Your task to perform on an android device: Open settings on Google Maps Image 0: 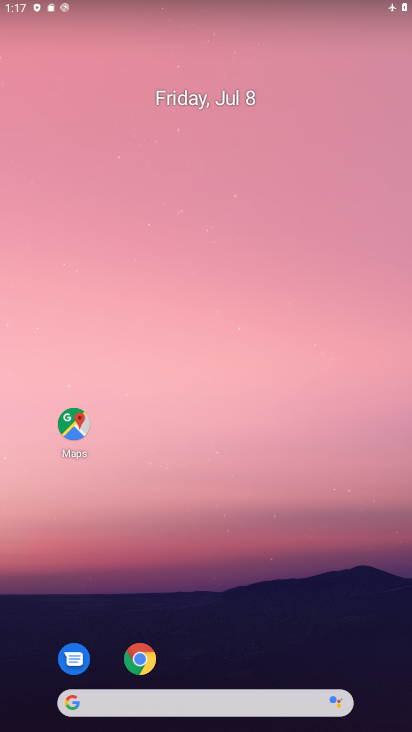
Step 0: drag from (217, 630) to (336, 76)
Your task to perform on an android device: Open settings on Google Maps Image 1: 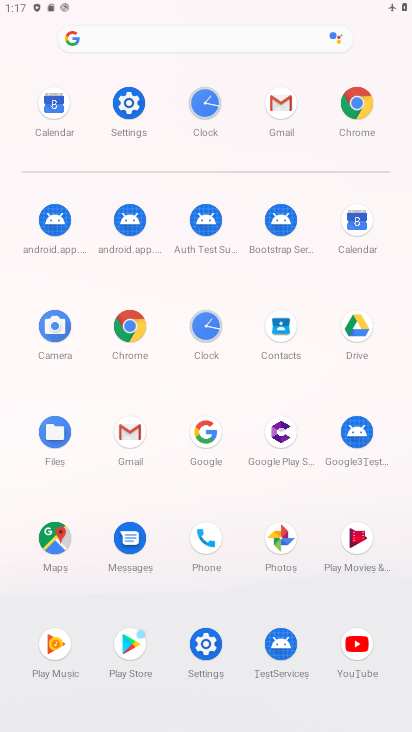
Step 1: click (52, 556)
Your task to perform on an android device: Open settings on Google Maps Image 2: 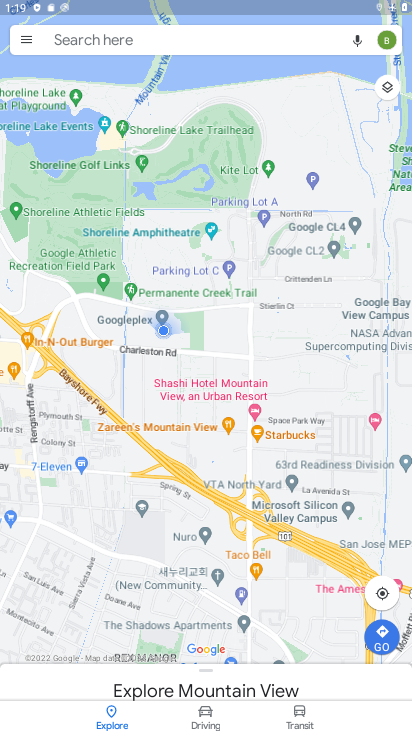
Step 2: click (31, 44)
Your task to perform on an android device: Open settings on Google Maps Image 3: 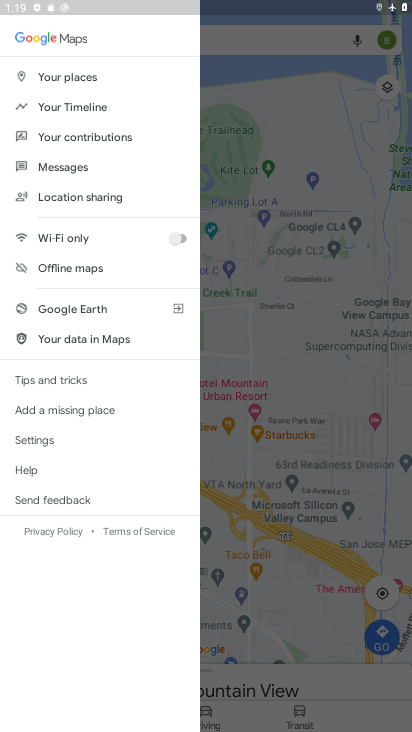
Step 3: click (76, 445)
Your task to perform on an android device: Open settings on Google Maps Image 4: 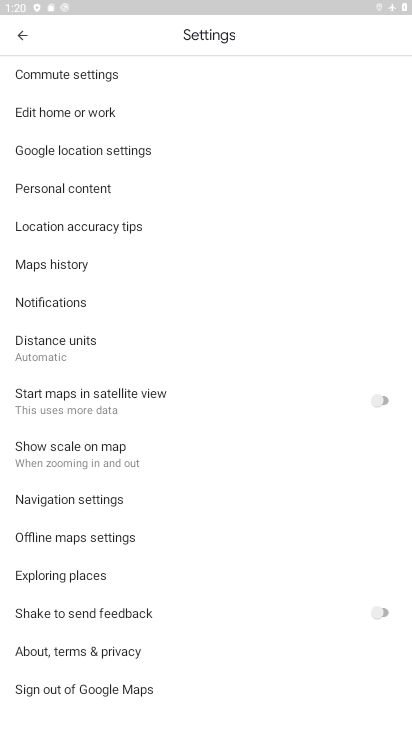
Step 4: task complete